Your task to perform on an android device: Turn off the flashlight Image 0: 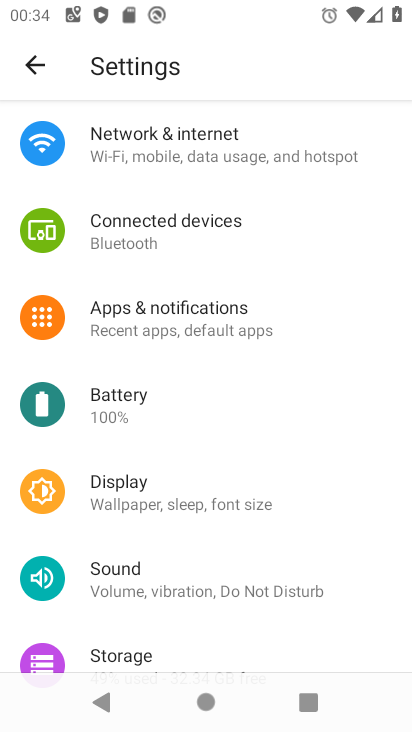
Step 0: click (233, 313)
Your task to perform on an android device: Turn off the flashlight Image 1: 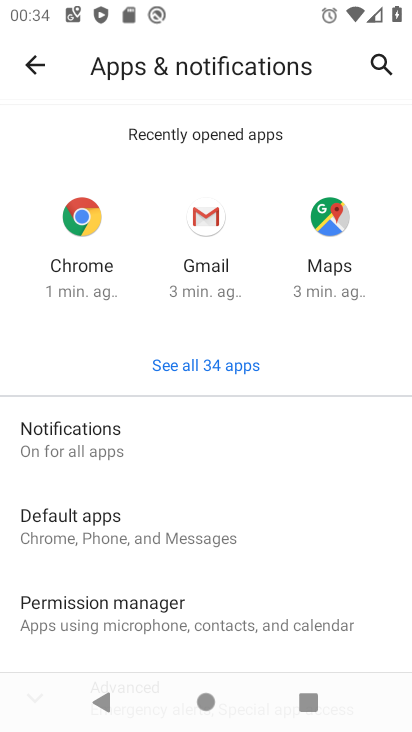
Step 1: click (220, 482)
Your task to perform on an android device: Turn off the flashlight Image 2: 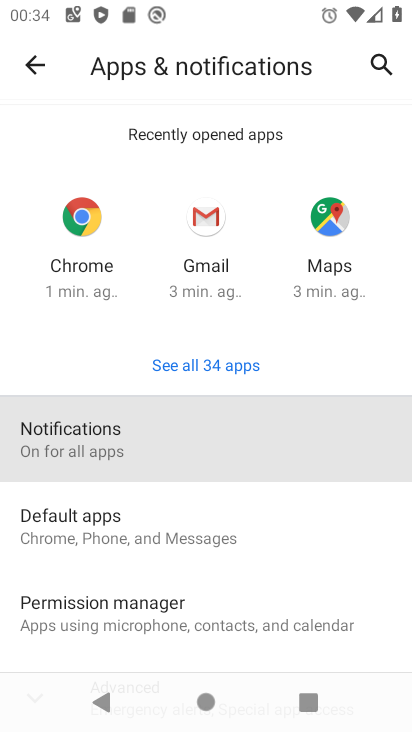
Step 2: task complete